Your task to perform on an android device: change text size in settings app Image 0: 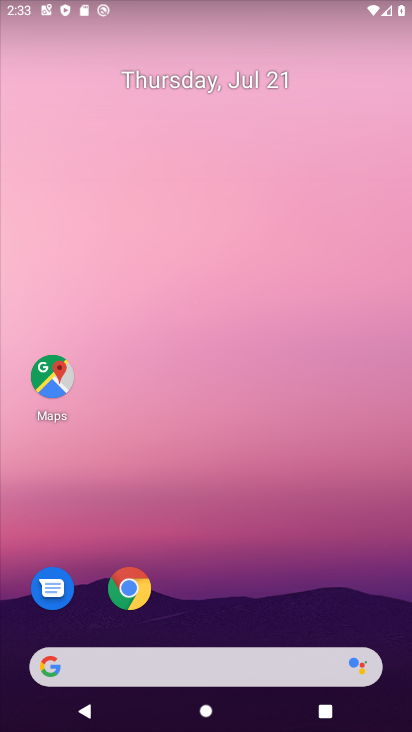
Step 0: drag from (200, 581) to (245, 219)
Your task to perform on an android device: change text size in settings app Image 1: 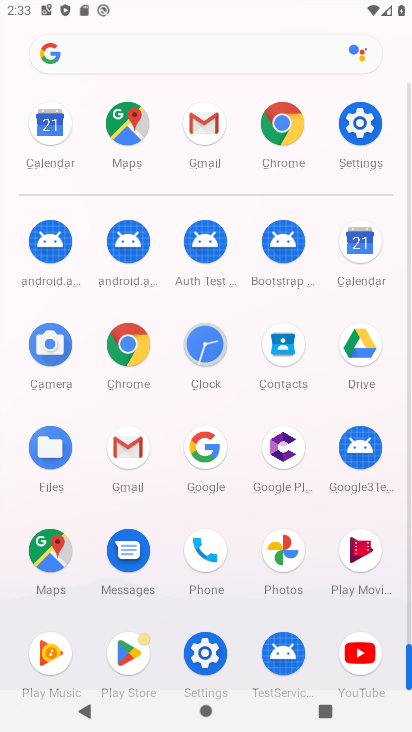
Step 1: click (204, 660)
Your task to perform on an android device: change text size in settings app Image 2: 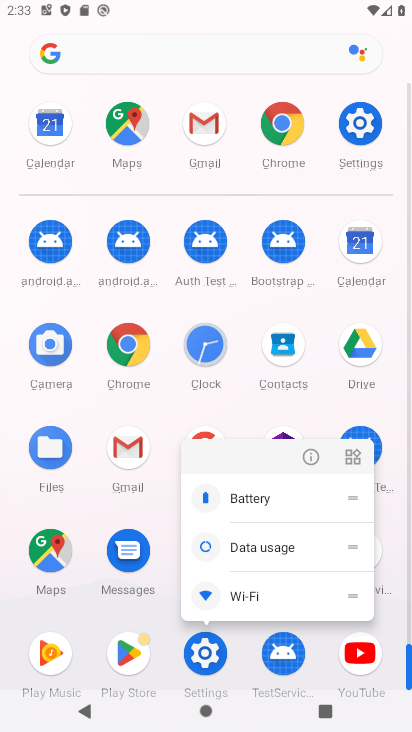
Step 2: click (300, 448)
Your task to perform on an android device: change text size in settings app Image 3: 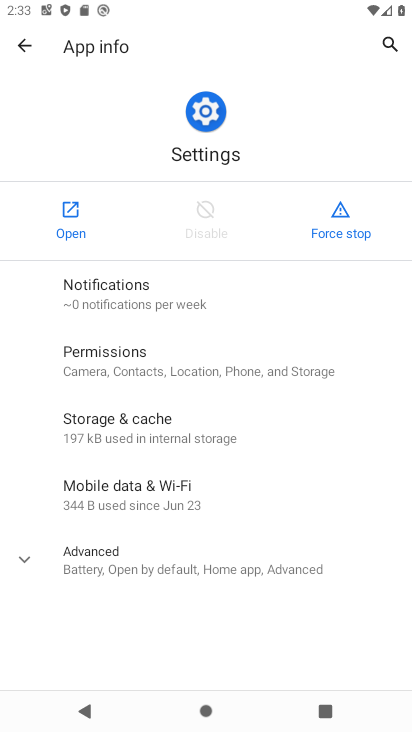
Step 3: click (55, 201)
Your task to perform on an android device: change text size in settings app Image 4: 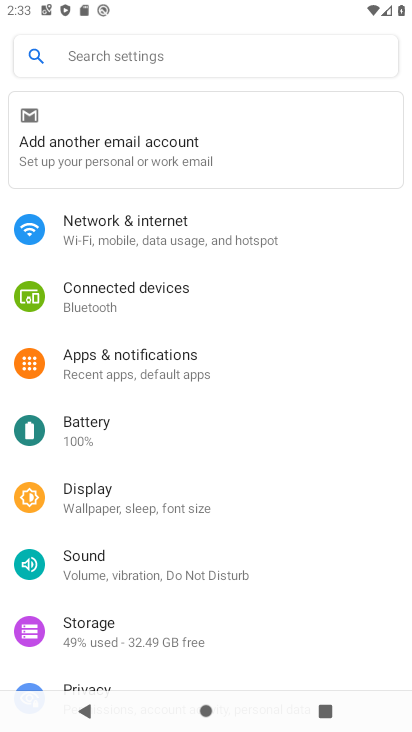
Step 4: drag from (250, 525) to (261, 228)
Your task to perform on an android device: change text size in settings app Image 5: 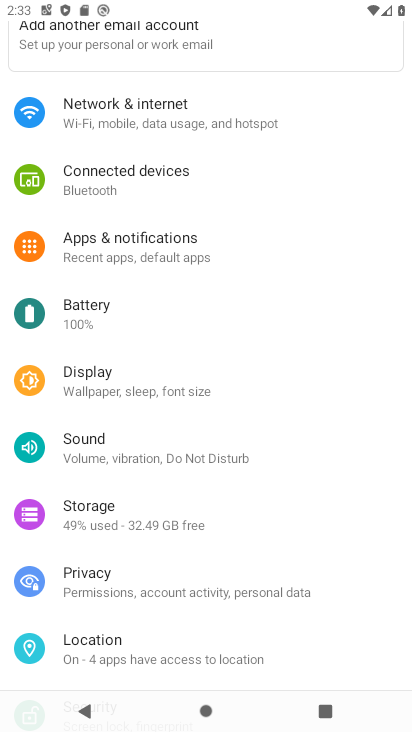
Step 5: click (115, 381)
Your task to perform on an android device: change text size in settings app Image 6: 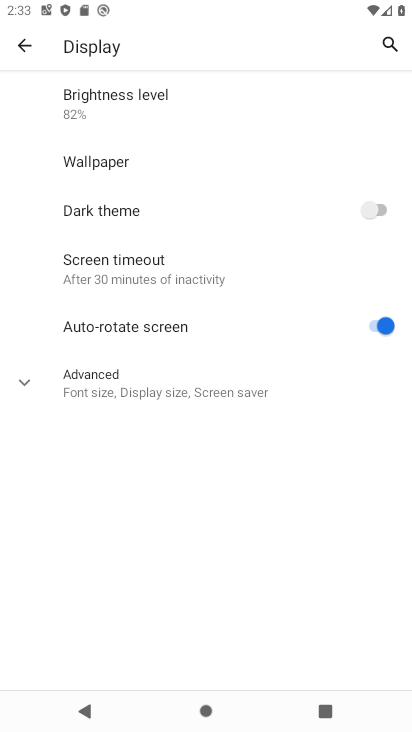
Step 6: drag from (187, 434) to (334, 175)
Your task to perform on an android device: change text size in settings app Image 7: 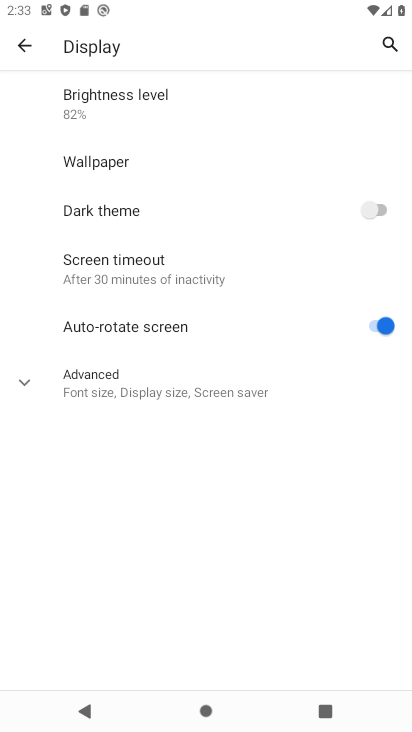
Step 7: click (111, 381)
Your task to perform on an android device: change text size in settings app Image 8: 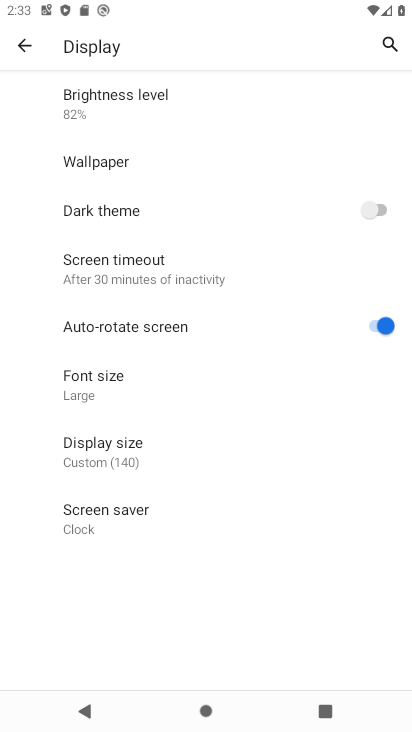
Step 8: click (147, 389)
Your task to perform on an android device: change text size in settings app Image 9: 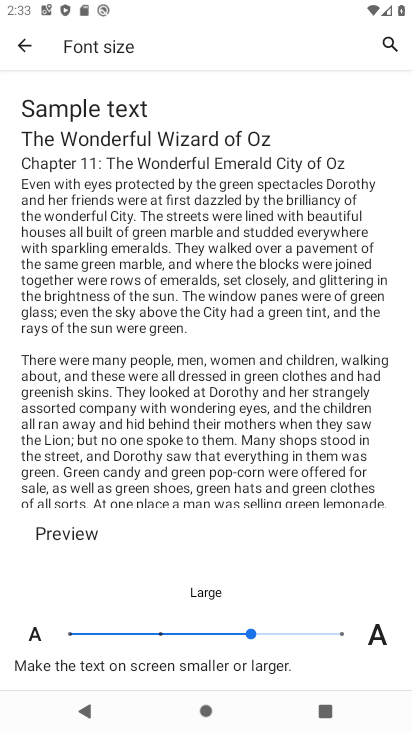
Step 9: click (321, 618)
Your task to perform on an android device: change text size in settings app Image 10: 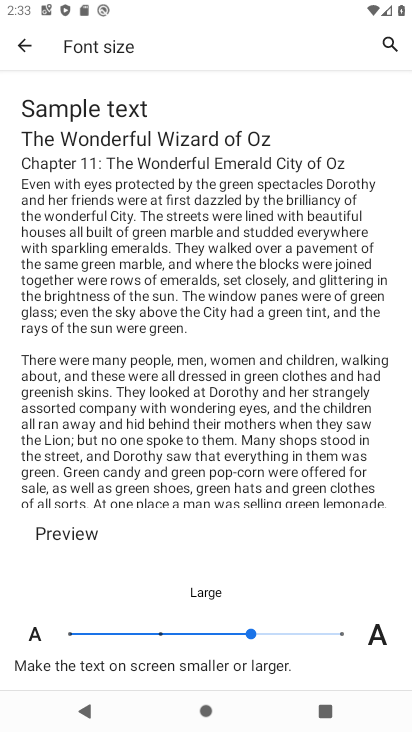
Step 10: click (331, 631)
Your task to perform on an android device: change text size in settings app Image 11: 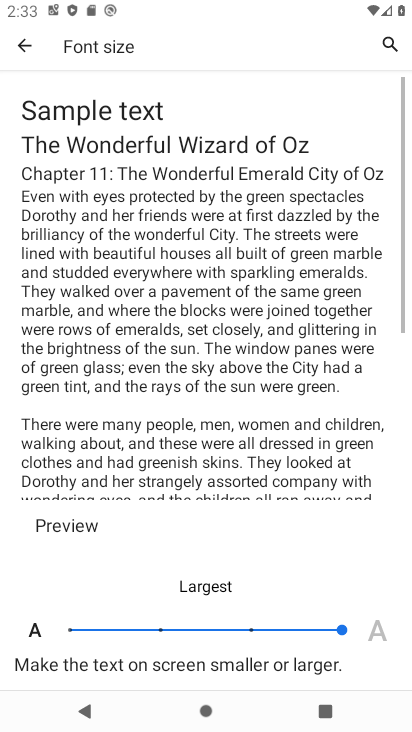
Step 11: drag from (198, 516) to (238, 269)
Your task to perform on an android device: change text size in settings app Image 12: 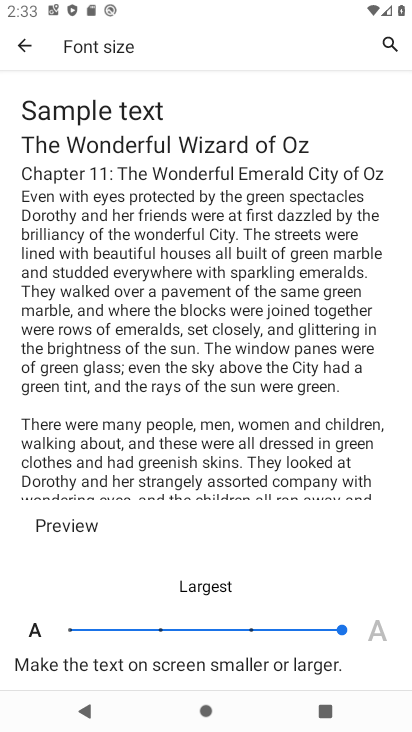
Step 12: drag from (174, 467) to (339, 143)
Your task to perform on an android device: change text size in settings app Image 13: 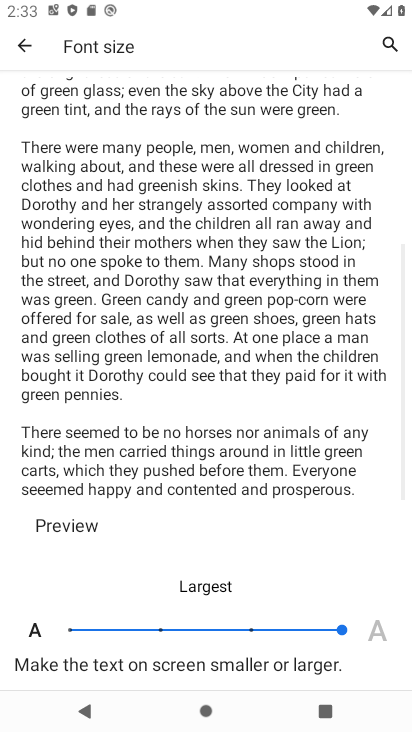
Step 13: drag from (314, 262) to (320, 728)
Your task to perform on an android device: change text size in settings app Image 14: 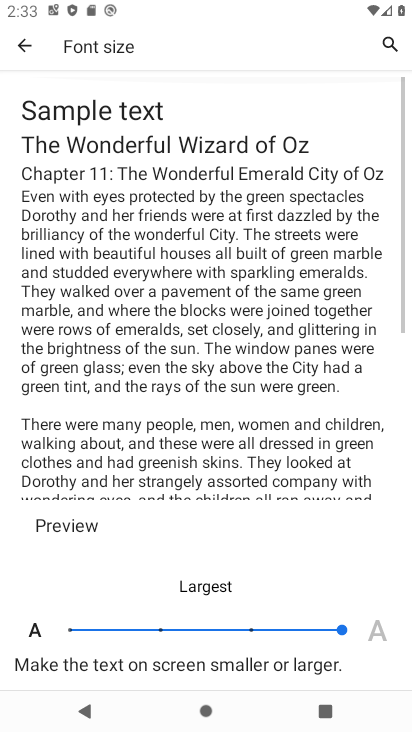
Step 14: drag from (219, 268) to (230, 532)
Your task to perform on an android device: change text size in settings app Image 15: 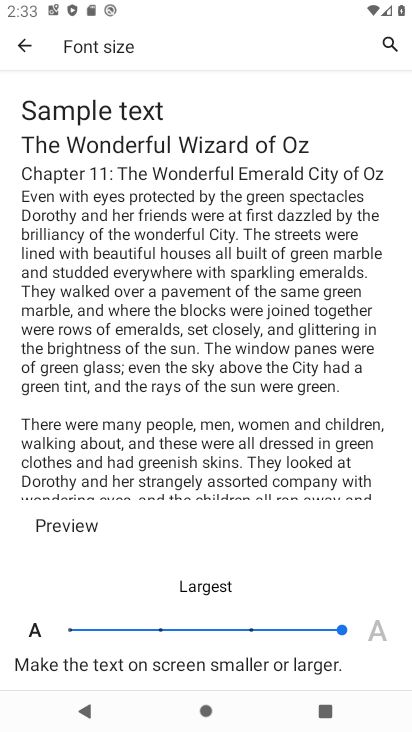
Step 15: drag from (221, 328) to (274, 95)
Your task to perform on an android device: change text size in settings app Image 16: 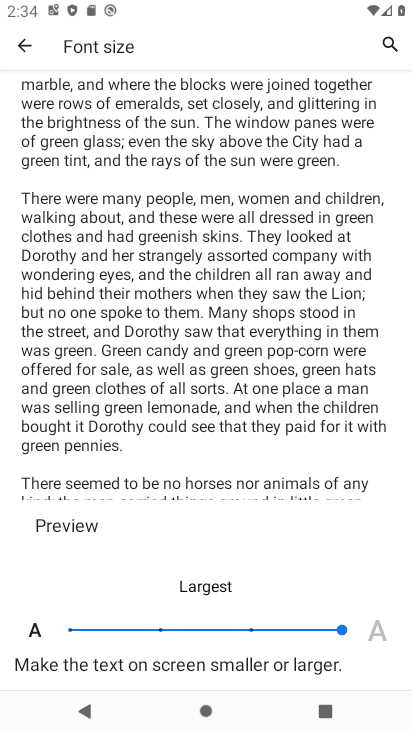
Step 16: drag from (195, 410) to (264, 179)
Your task to perform on an android device: change text size in settings app Image 17: 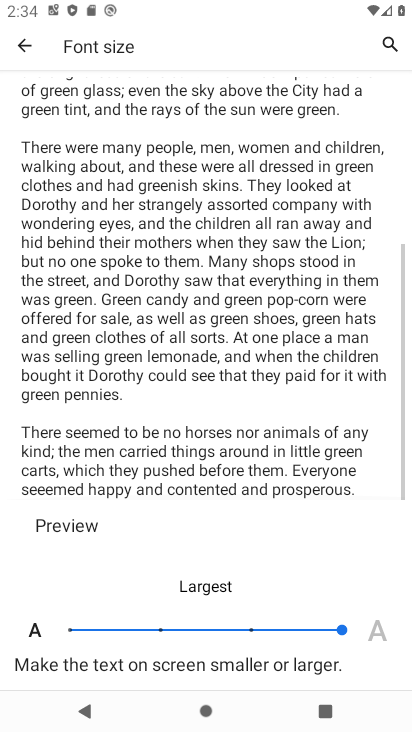
Step 17: drag from (214, 357) to (245, 159)
Your task to perform on an android device: change text size in settings app Image 18: 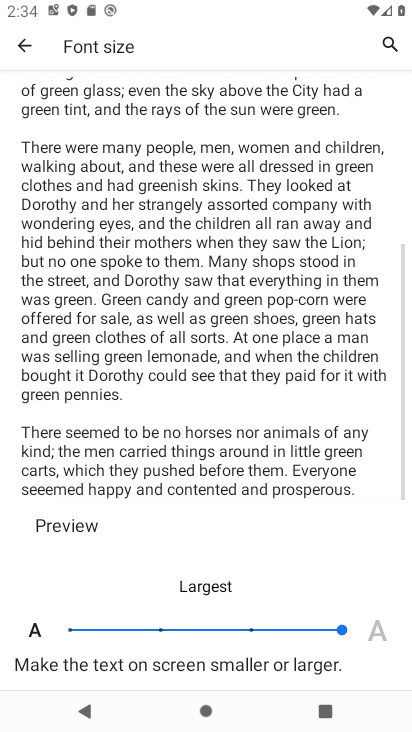
Step 18: drag from (205, 426) to (246, 249)
Your task to perform on an android device: change text size in settings app Image 19: 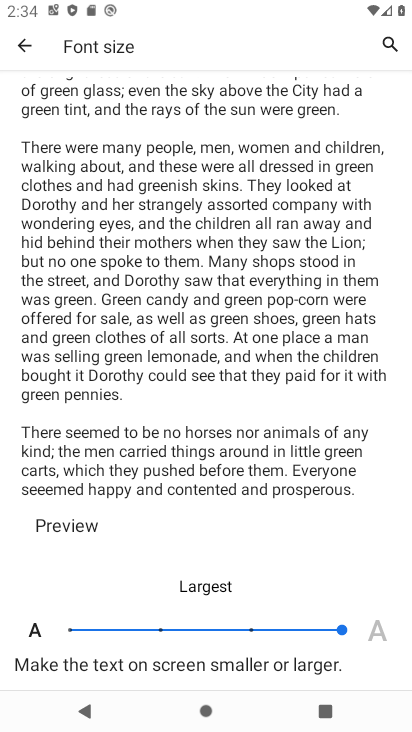
Step 19: click (282, 161)
Your task to perform on an android device: change text size in settings app Image 20: 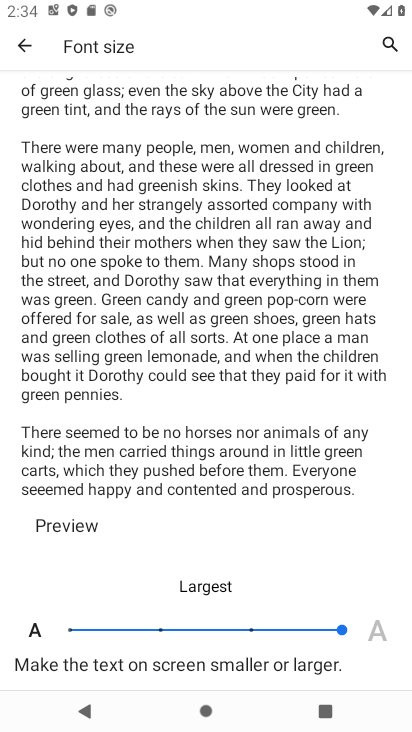
Step 20: task complete